Your task to perform on an android device: Is it going to rain tomorrow? Image 0: 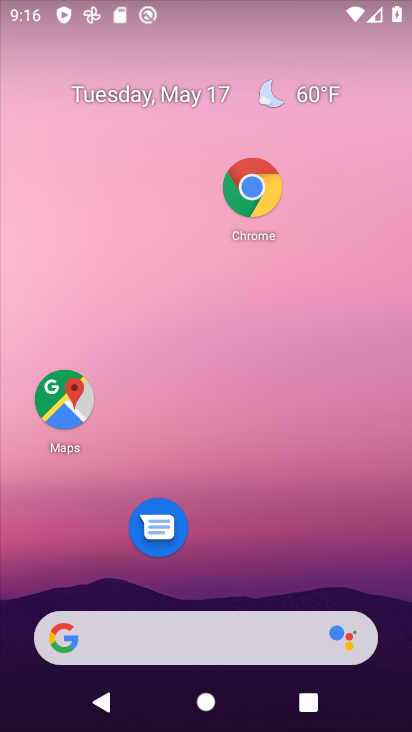
Step 0: drag from (246, 588) to (276, 194)
Your task to perform on an android device: Is it going to rain tomorrow? Image 1: 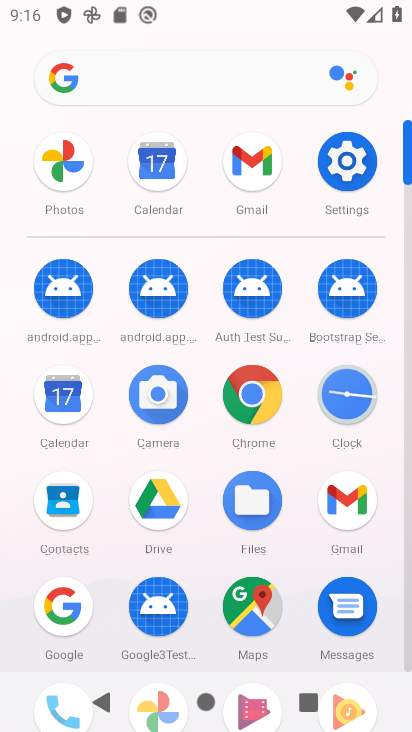
Step 1: click (200, 64)
Your task to perform on an android device: Is it going to rain tomorrow? Image 2: 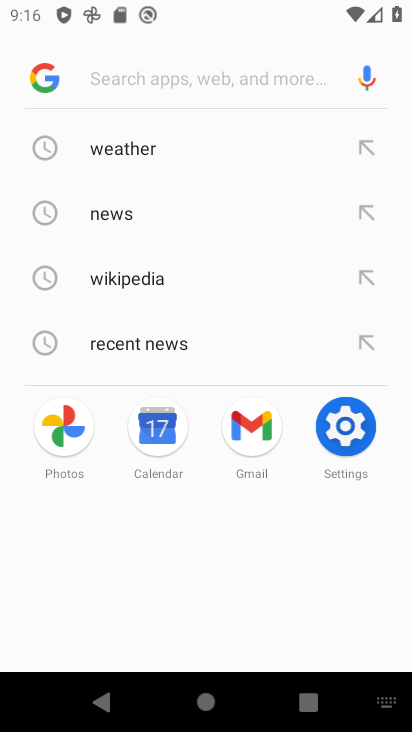
Step 2: click (179, 153)
Your task to perform on an android device: Is it going to rain tomorrow? Image 3: 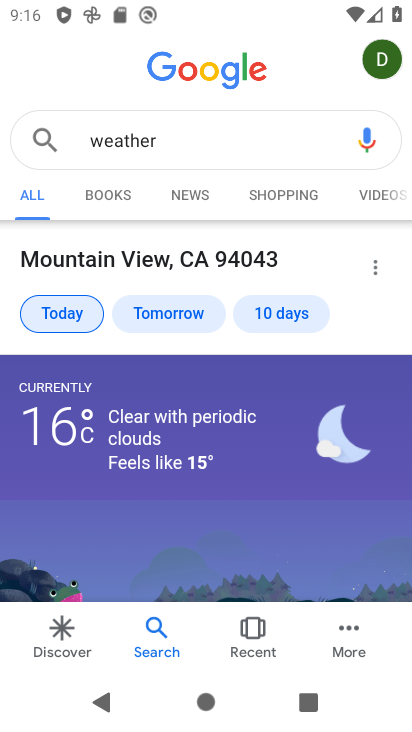
Step 3: click (156, 308)
Your task to perform on an android device: Is it going to rain tomorrow? Image 4: 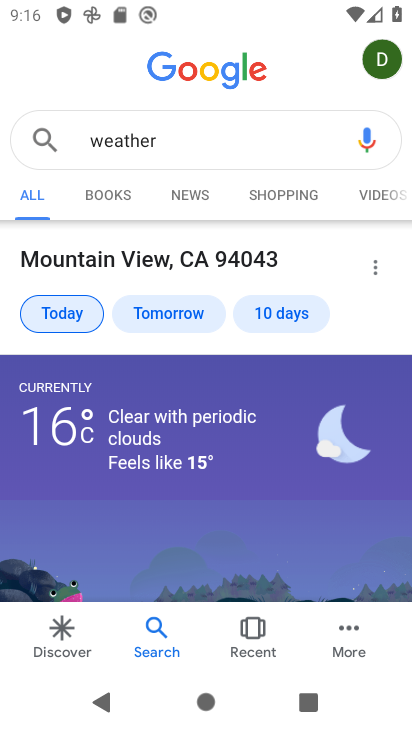
Step 4: click (156, 308)
Your task to perform on an android device: Is it going to rain tomorrow? Image 5: 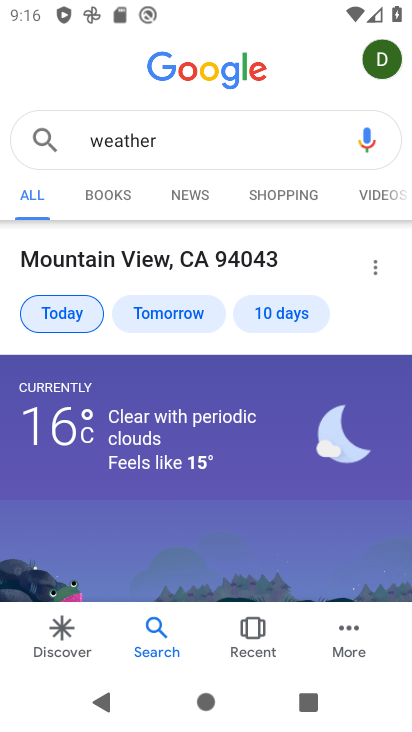
Step 5: click (156, 308)
Your task to perform on an android device: Is it going to rain tomorrow? Image 6: 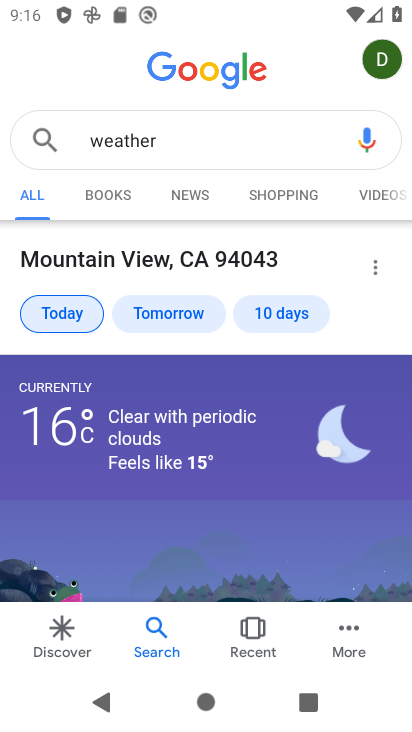
Step 6: click (156, 308)
Your task to perform on an android device: Is it going to rain tomorrow? Image 7: 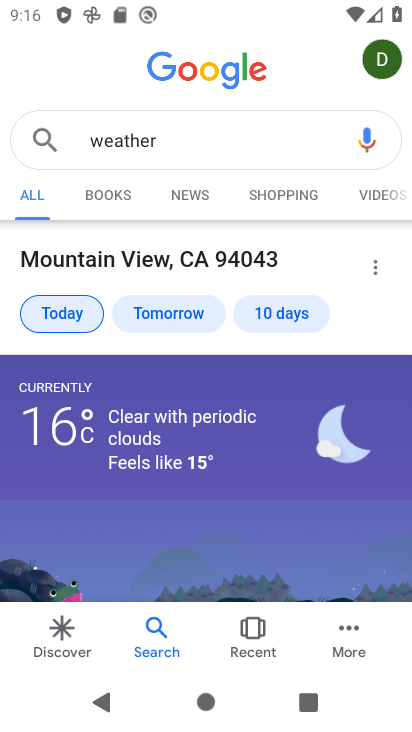
Step 7: task complete